Your task to perform on an android device: add a label to a message in the gmail app Image 0: 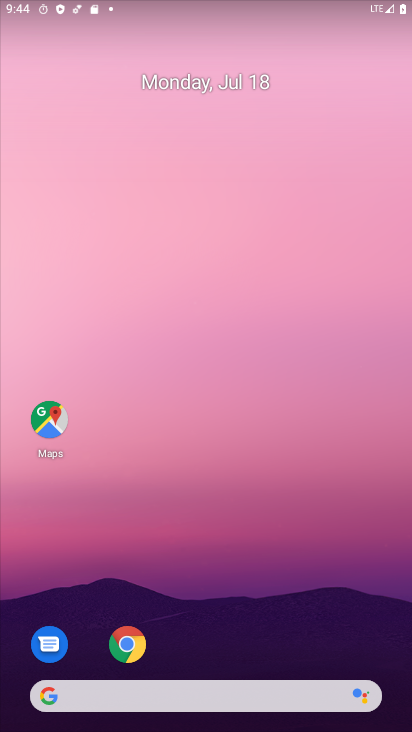
Step 0: click (222, 655)
Your task to perform on an android device: add a label to a message in the gmail app Image 1: 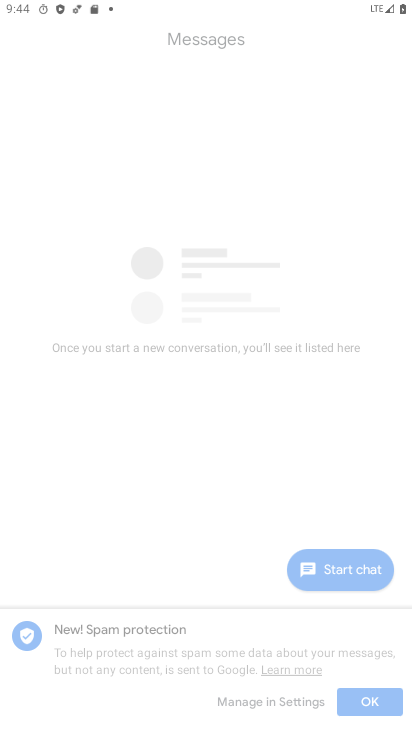
Step 1: drag from (58, 330) to (120, 335)
Your task to perform on an android device: add a label to a message in the gmail app Image 2: 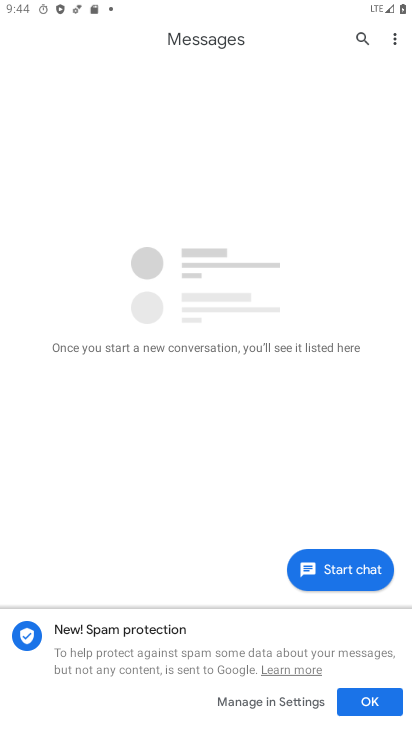
Step 2: press home button
Your task to perform on an android device: add a label to a message in the gmail app Image 3: 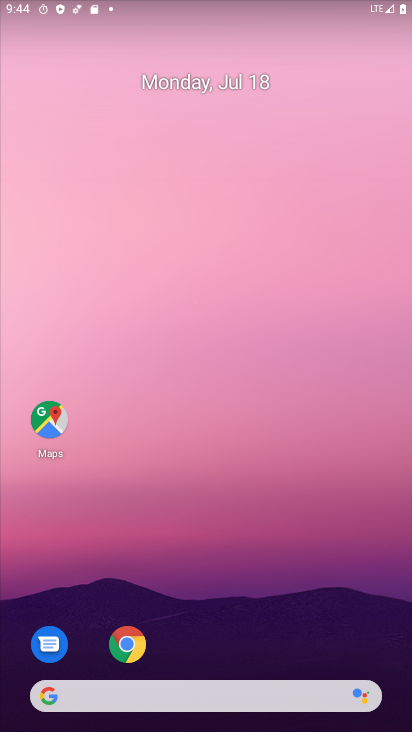
Step 3: drag from (227, 664) to (234, 66)
Your task to perform on an android device: add a label to a message in the gmail app Image 4: 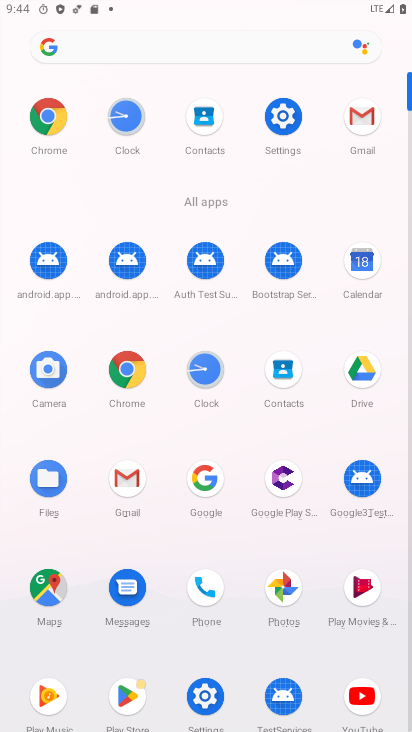
Step 4: click (360, 108)
Your task to perform on an android device: add a label to a message in the gmail app Image 5: 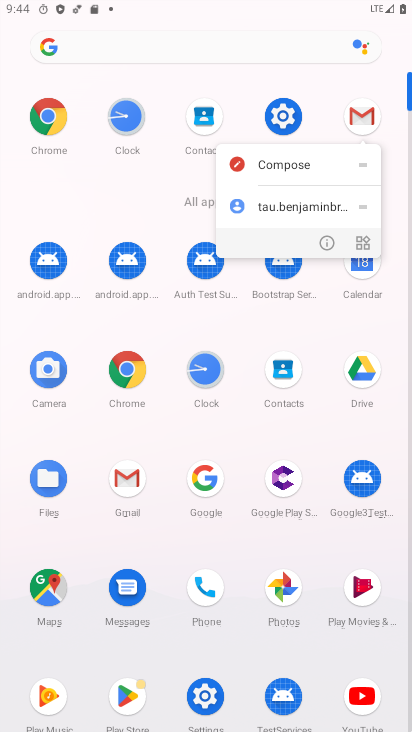
Step 5: click (364, 110)
Your task to perform on an android device: add a label to a message in the gmail app Image 6: 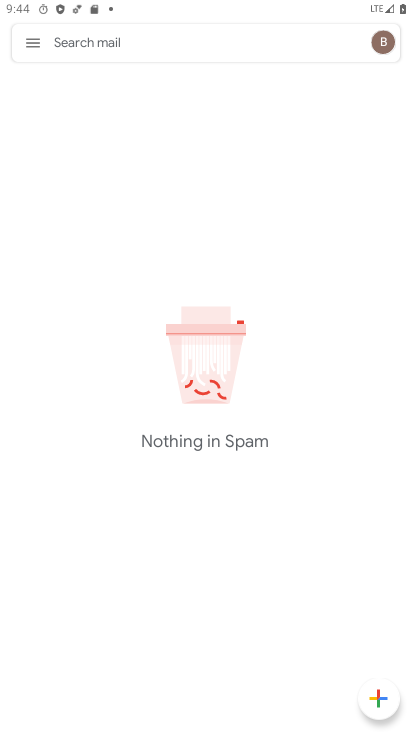
Step 6: click (35, 35)
Your task to perform on an android device: add a label to a message in the gmail app Image 7: 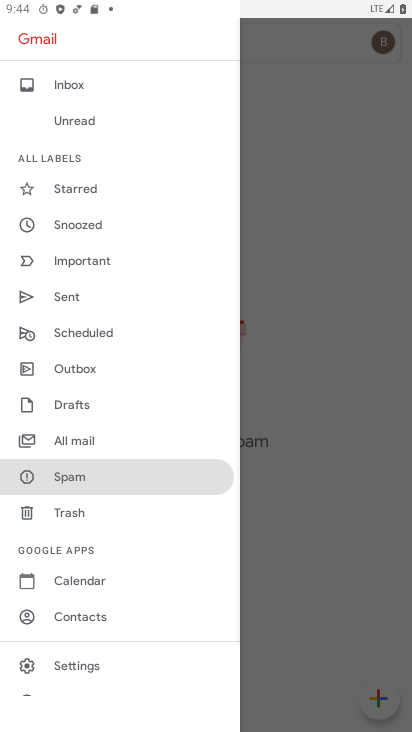
Step 7: click (77, 446)
Your task to perform on an android device: add a label to a message in the gmail app Image 8: 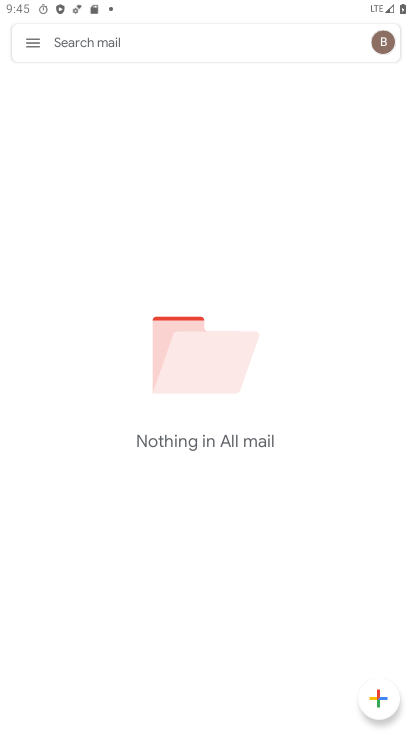
Step 8: task complete